Your task to perform on an android device: Go to privacy settings Image 0: 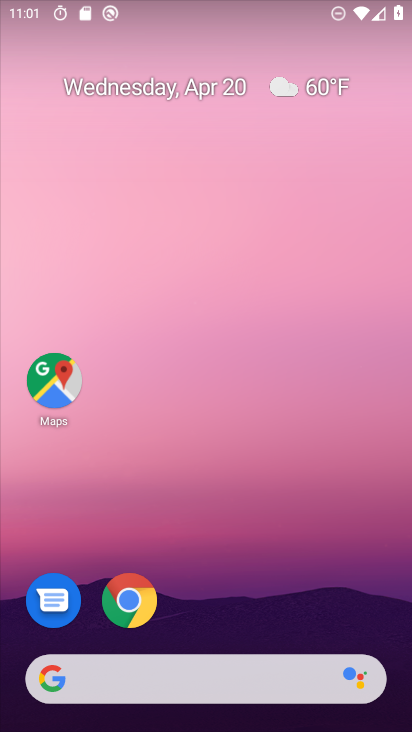
Step 0: drag from (202, 613) to (238, 116)
Your task to perform on an android device: Go to privacy settings Image 1: 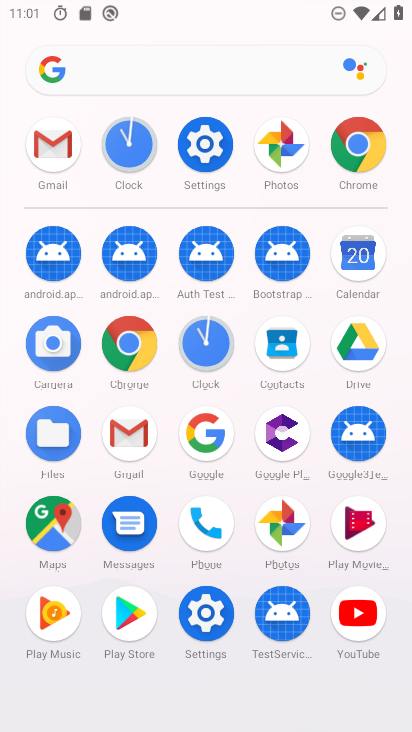
Step 1: click (220, 619)
Your task to perform on an android device: Go to privacy settings Image 2: 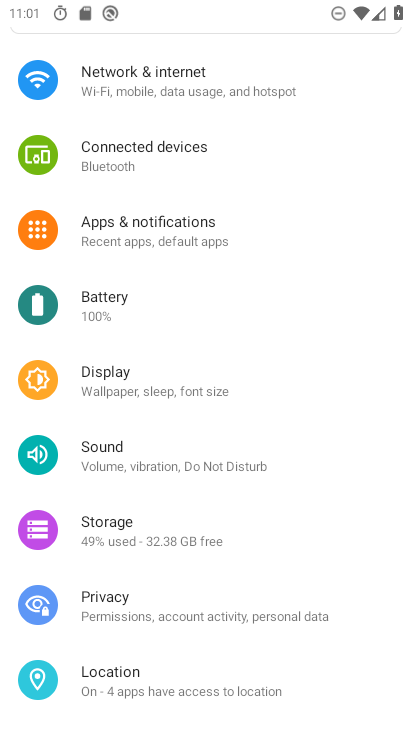
Step 2: click (103, 619)
Your task to perform on an android device: Go to privacy settings Image 3: 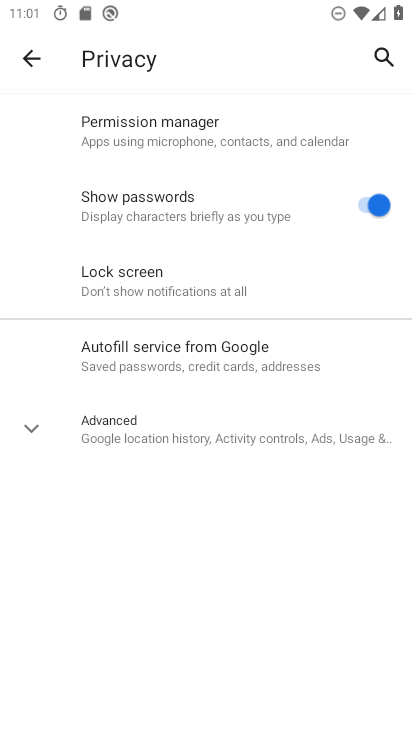
Step 3: task complete